Your task to perform on an android device: Add "asus zenbook" to the cart on bestbuy, then select checkout. Image 0: 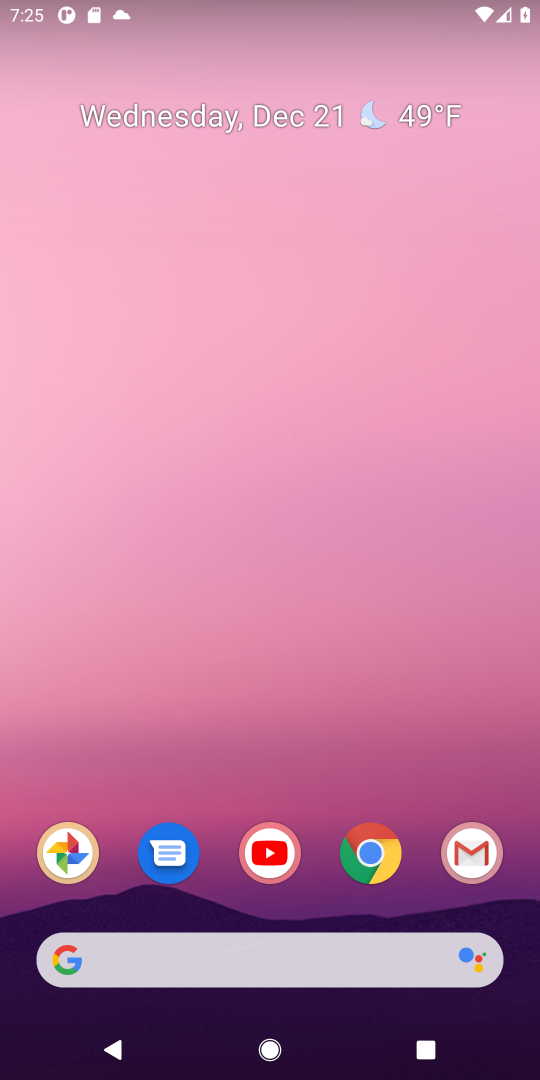
Step 0: click (354, 843)
Your task to perform on an android device: Add "asus zenbook" to the cart on bestbuy, then select checkout. Image 1: 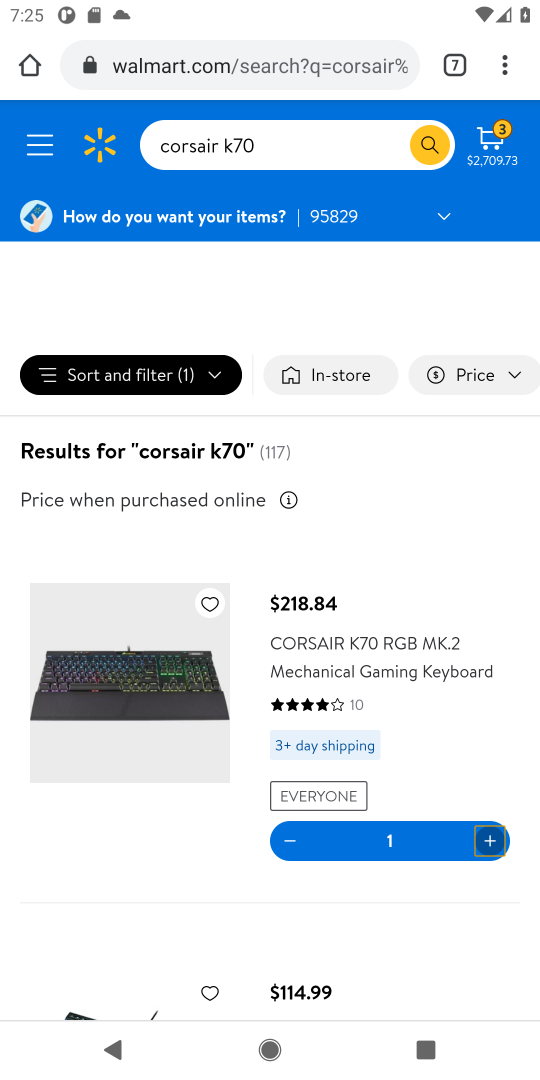
Step 1: click (450, 63)
Your task to perform on an android device: Add "asus zenbook" to the cart on bestbuy, then select checkout. Image 2: 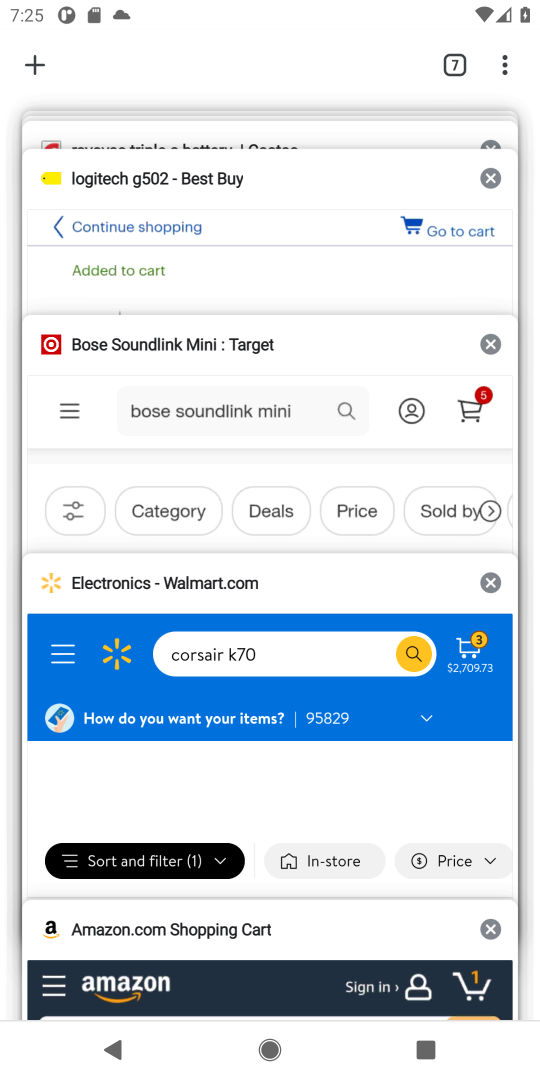
Step 2: click (232, 207)
Your task to perform on an android device: Add "asus zenbook" to the cart on bestbuy, then select checkout. Image 3: 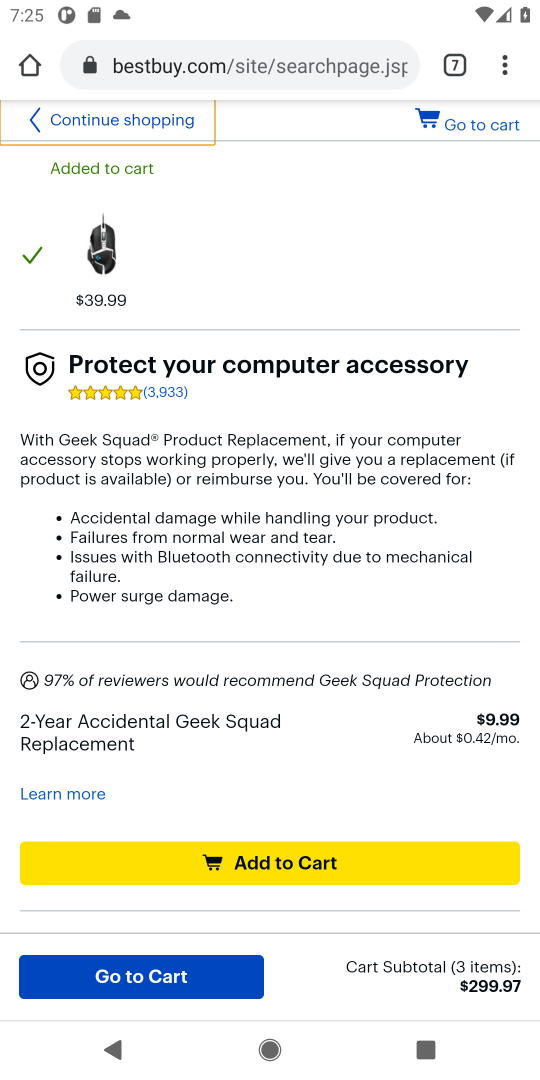
Step 3: click (105, 122)
Your task to perform on an android device: Add "asus zenbook" to the cart on bestbuy, then select checkout. Image 4: 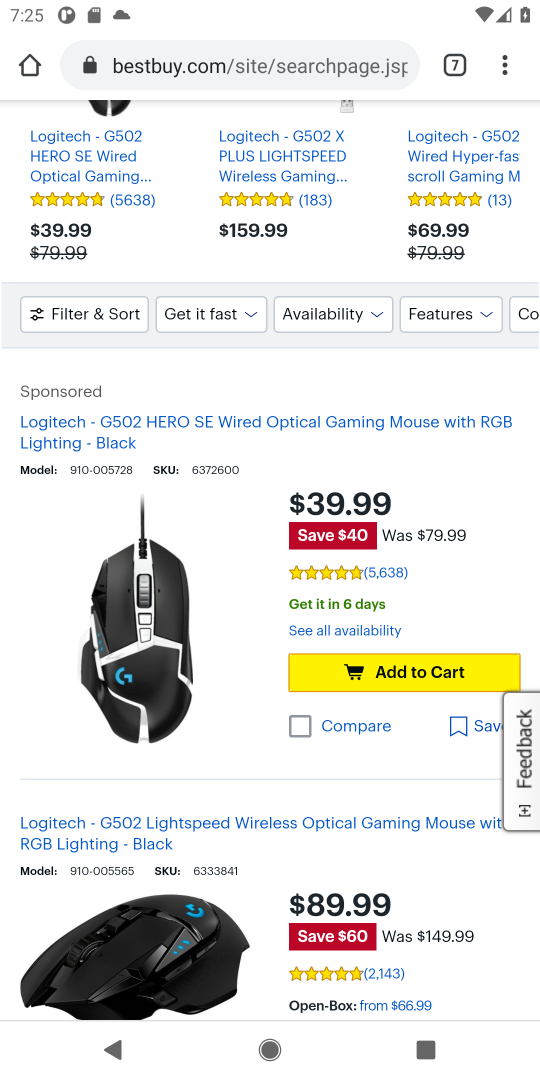
Step 4: drag from (191, 146) to (266, 755)
Your task to perform on an android device: Add "asus zenbook" to the cart on bestbuy, then select checkout. Image 5: 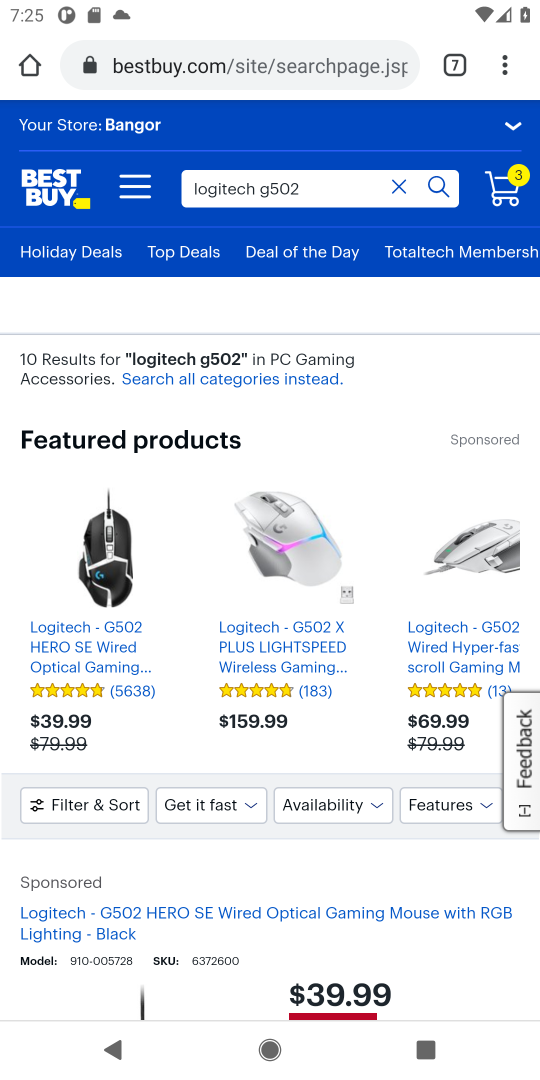
Step 5: click (405, 180)
Your task to perform on an android device: Add "asus zenbook" to the cart on bestbuy, then select checkout. Image 6: 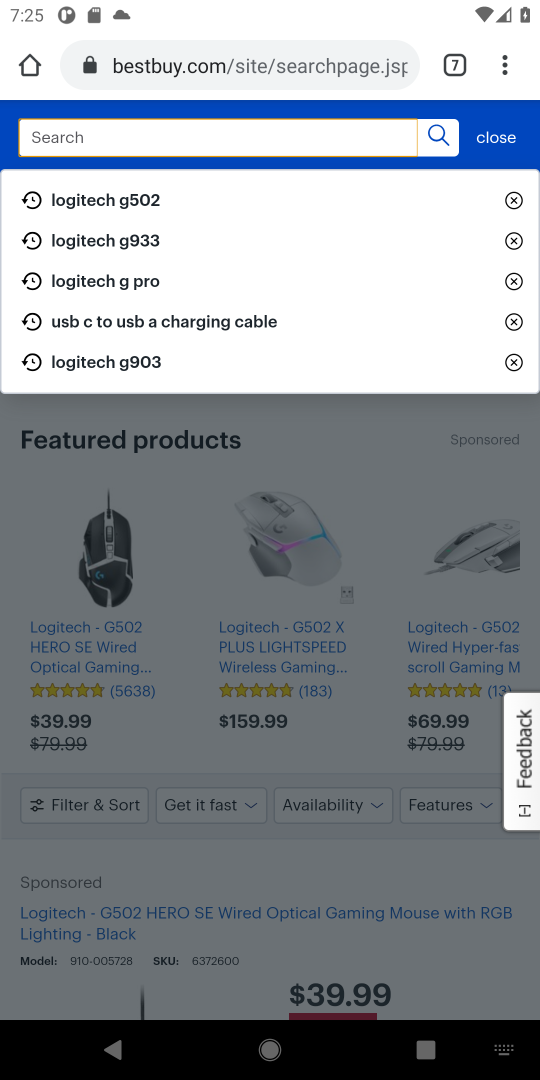
Step 6: type "asus zenbook"
Your task to perform on an android device: Add "asus zenbook" to the cart on bestbuy, then select checkout. Image 7: 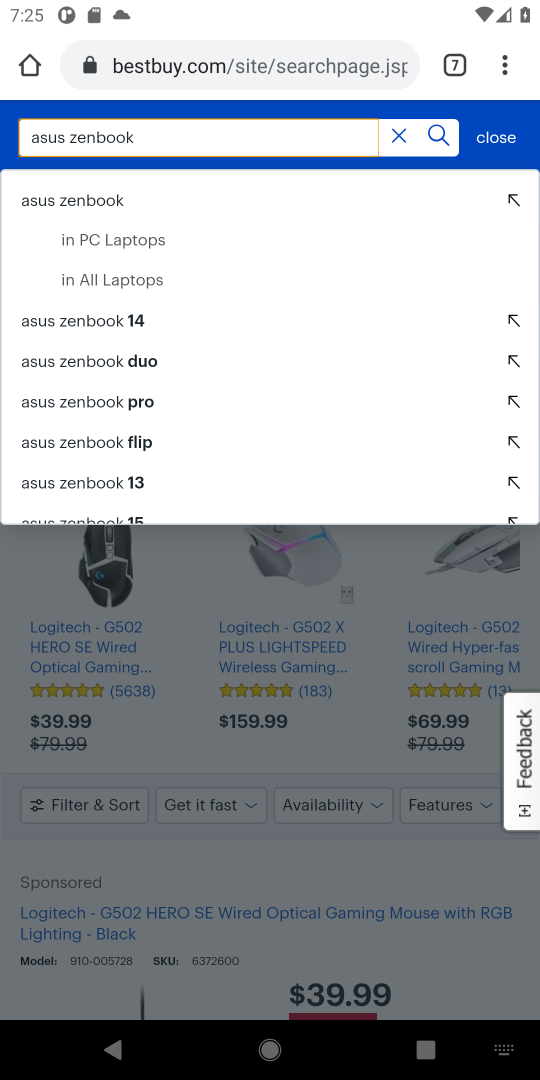
Step 7: click (82, 195)
Your task to perform on an android device: Add "asus zenbook" to the cart on bestbuy, then select checkout. Image 8: 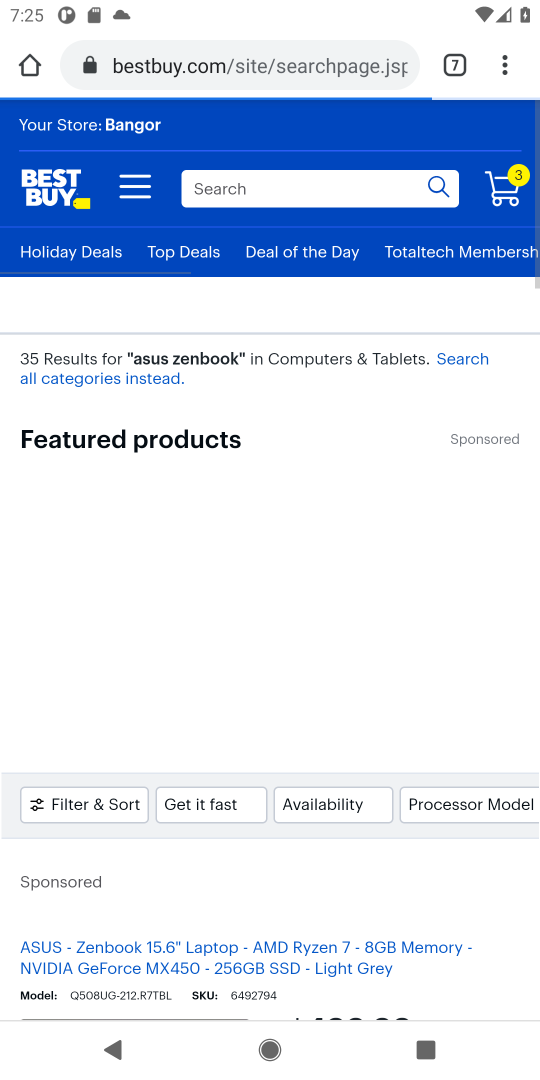
Step 8: click (442, 128)
Your task to perform on an android device: Add "asus zenbook" to the cart on bestbuy, then select checkout. Image 9: 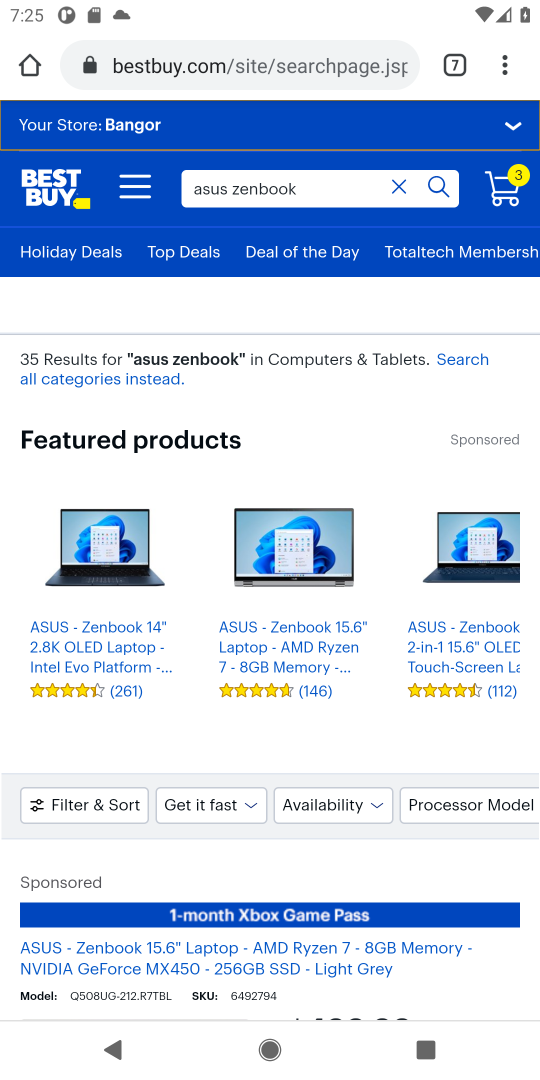
Step 9: drag from (308, 870) to (338, 423)
Your task to perform on an android device: Add "asus zenbook" to the cart on bestbuy, then select checkout. Image 10: 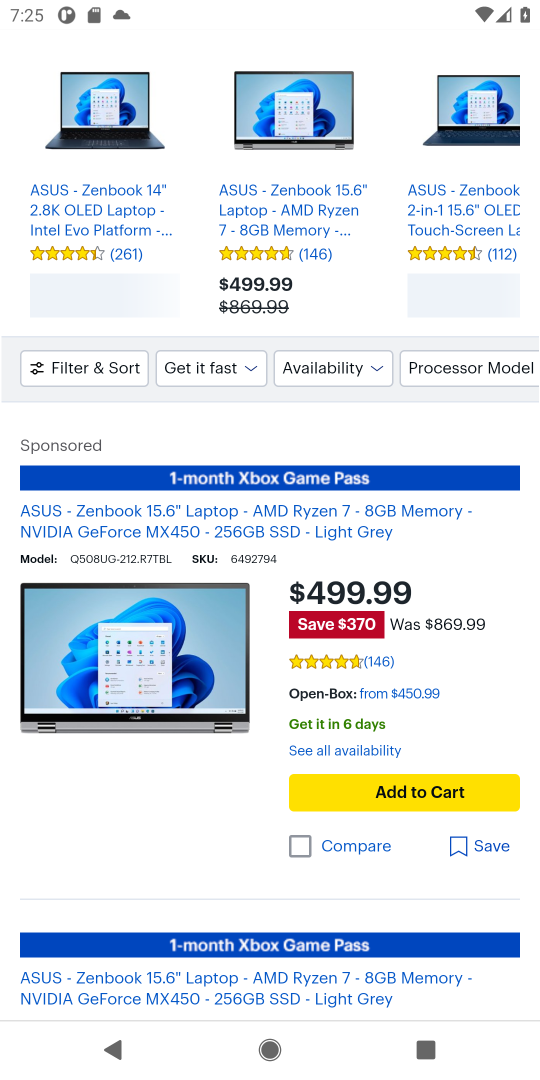
Step 10: click (435, 736)
Your task to perform on an android device: Add "asus zenbook" to the cart on bestbuy, then select checkout. Image 11: 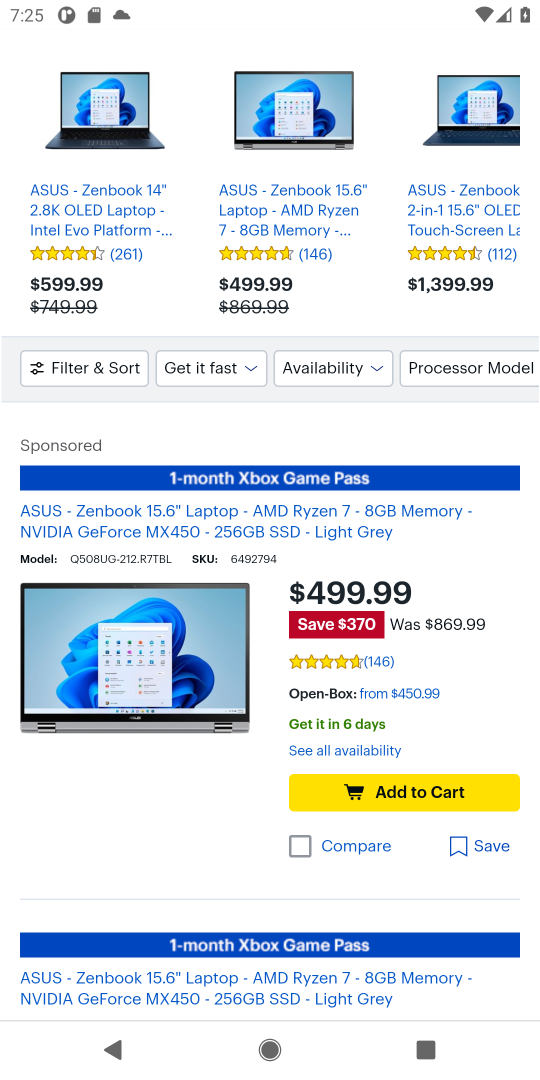
Step 11: click (428, 797)
Your task to perform on an android device: Add "asus zenbook" to the cart on bestbuy, then select checkout. Image 12: 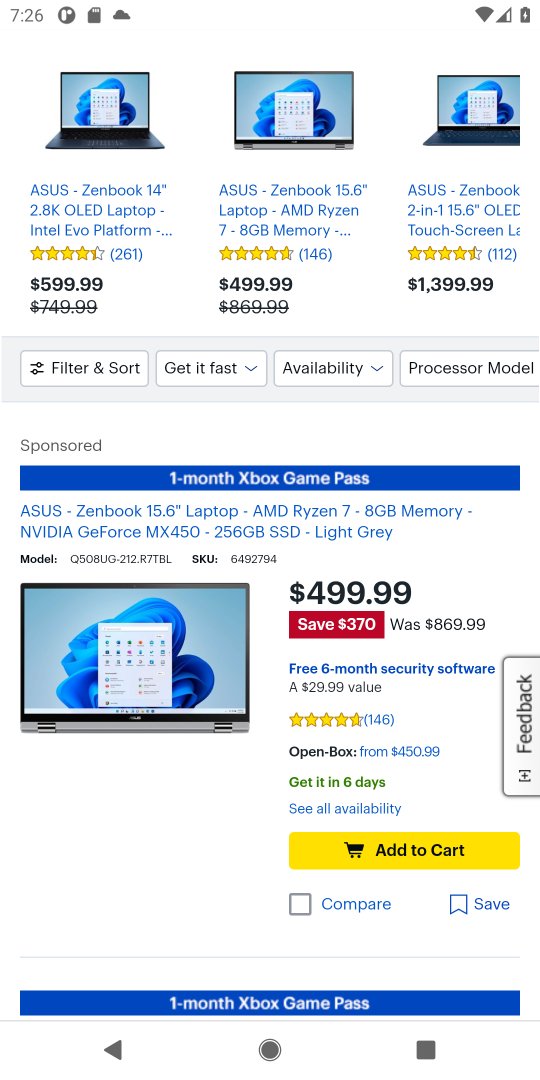
Step 12: click (425, 849)
Your task to perform on an android device: Add "asus zenbook" to the cart on bestbuy, then select checkout. Image 13: 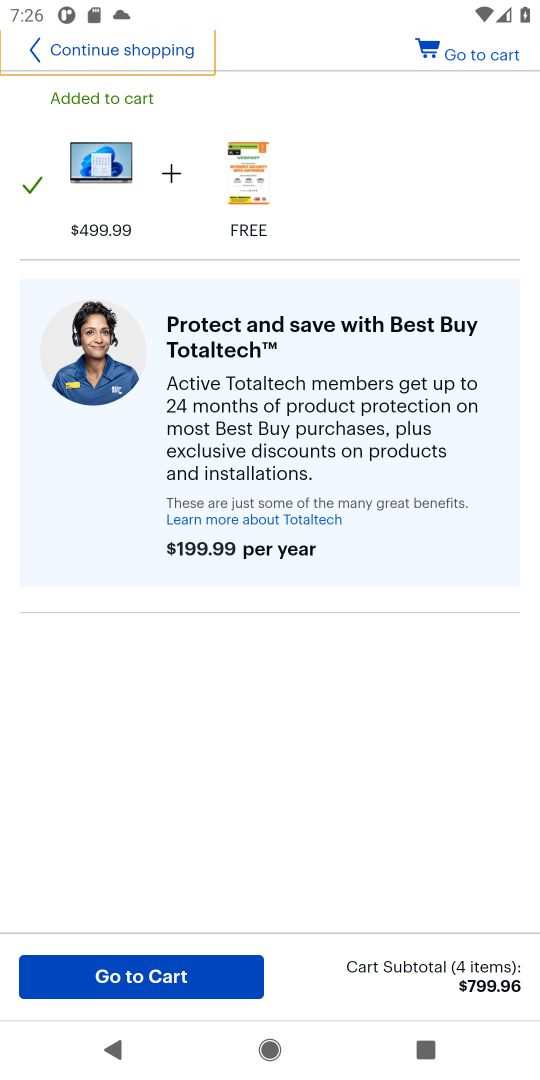
Step 13: task complete